Your task to perform on an android device: turn smart compose on in the gmail app Image 0: 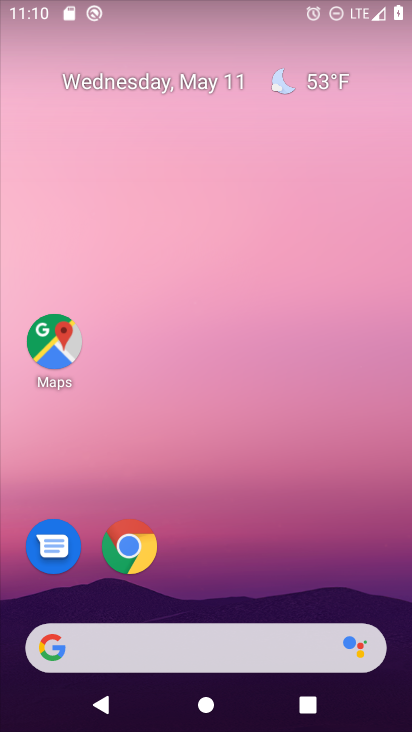
Step 0: drag from (376, 602) to (274, 115)
Your task to perform on an android device: turn smart compose on in the gmail app Image 1: 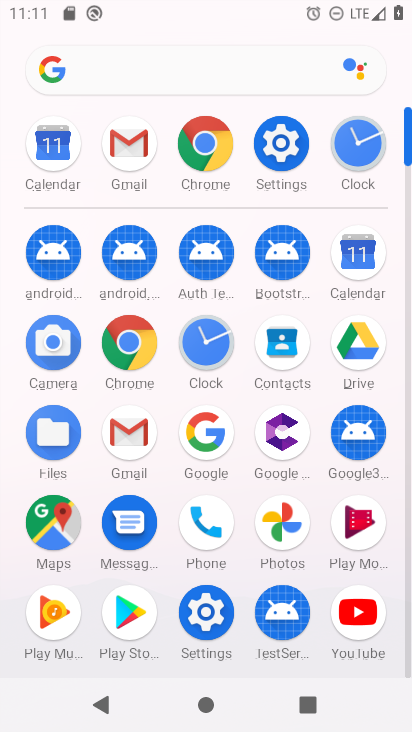
Step 1: click (123, 433)
Your task to perform on an android device: turn smart compose on in the gmail app Image 2: 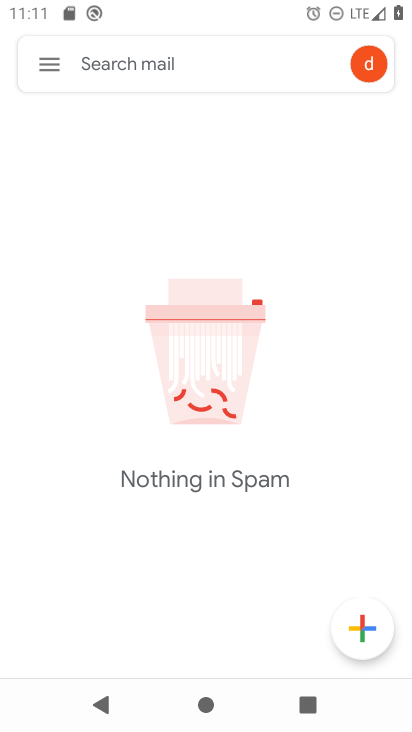
Step 2: click (46, 80)
Your task to perform on an android device: turn smart compose on in the gmail app Image 3: 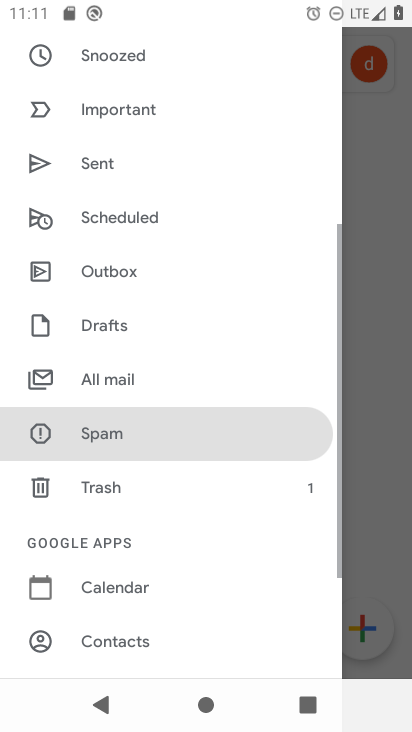
Step 3: drag from (123, 588) to (164, 127)
Your task to perform on an android device: turn smart compose on in the gmail app Image 4: 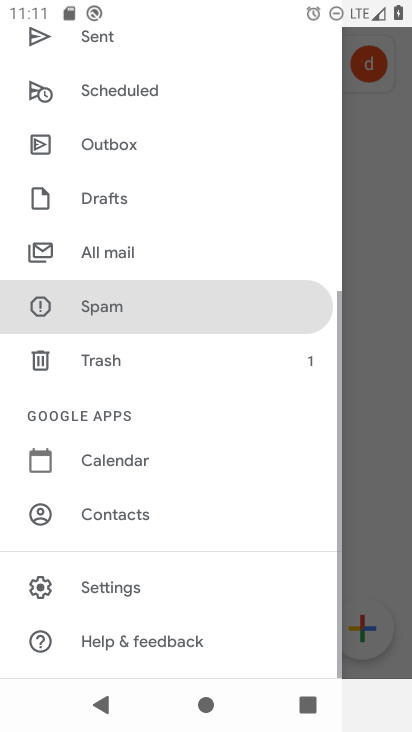
Step 4: click (134, 577)
Your task to perform on an android device: turn smart compose on in the gmail app Image 5: 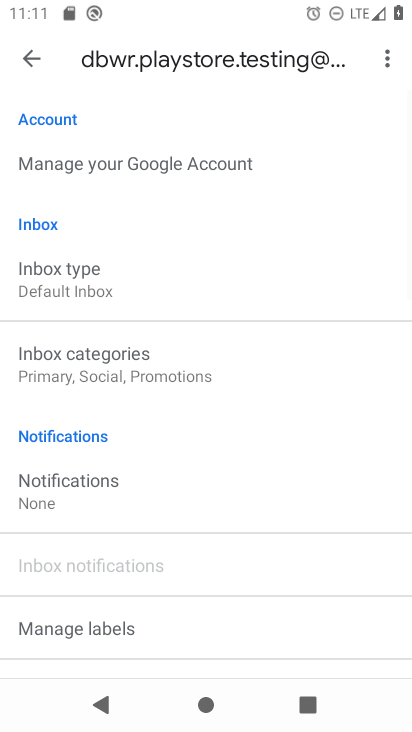
Step 5: task complete